Your task to perform on an android device: Open eBay Image 0: 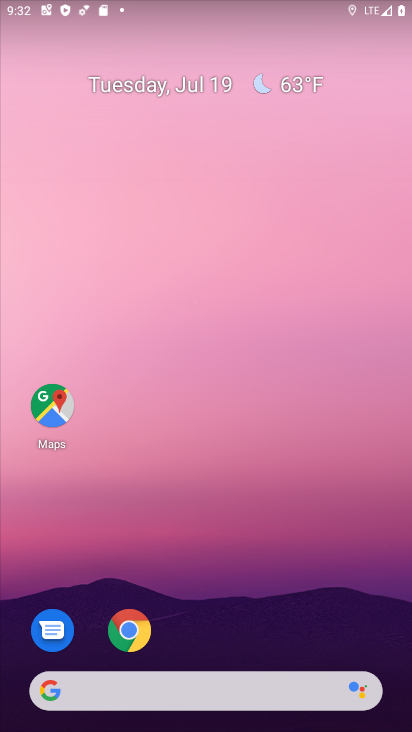
Step 0: click (128, 631)
Your task to perform on an android device: Open eBay Image 1: 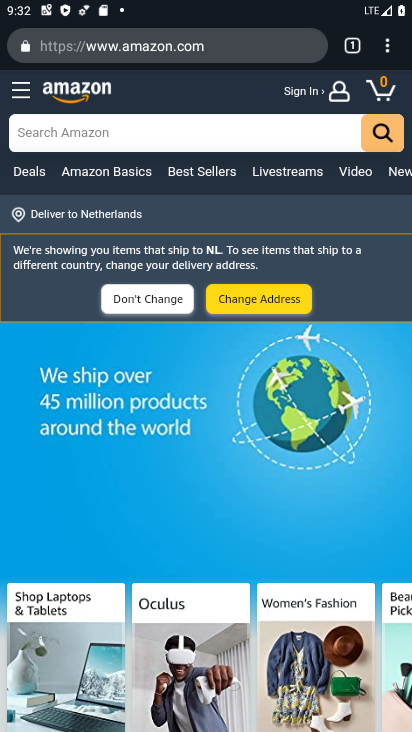
Step 1: click (251, 45)
Your task to perform on an android device: Open eBay Image 2: 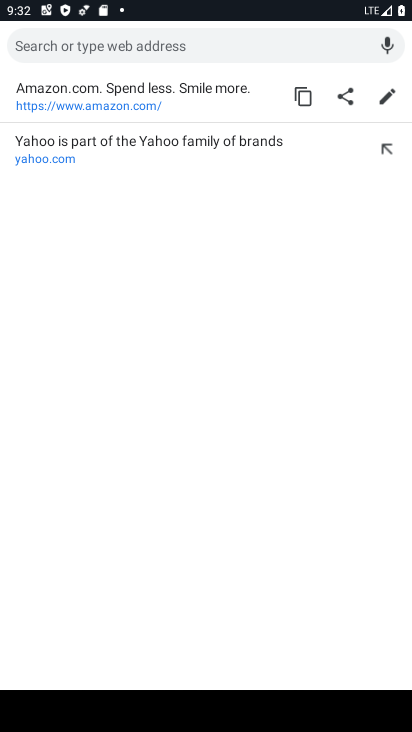
Step 2: type "eBay"
Your task to perform on an android device: Open eBay Image 3: 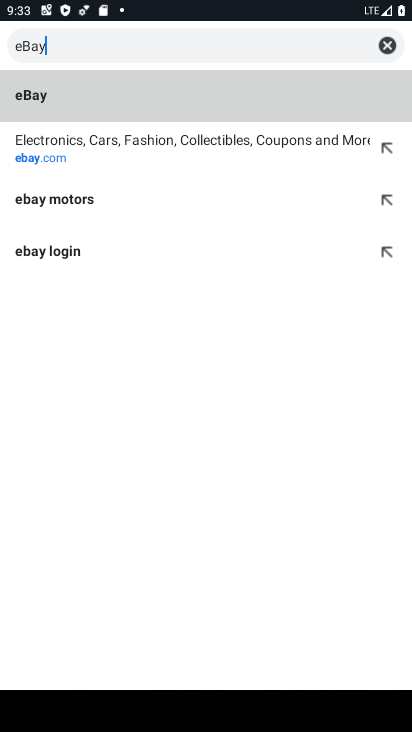
Step 3: click (44, 97)
Your task to perform on an android device: Open eBay Image 4: 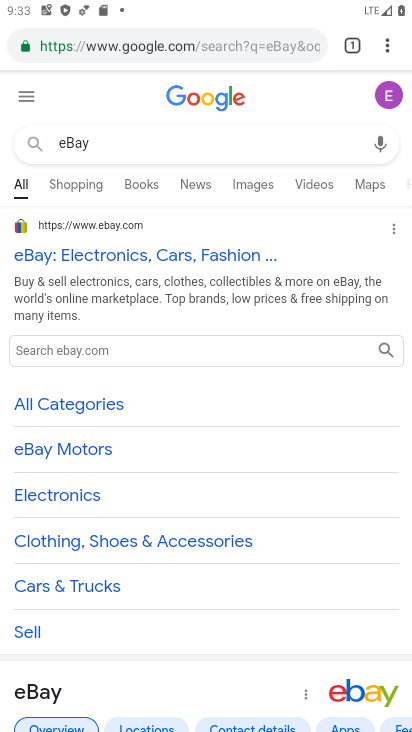
Step 4: click (81, 254)
Your task to perform on an android device: Open eBay Image 5: 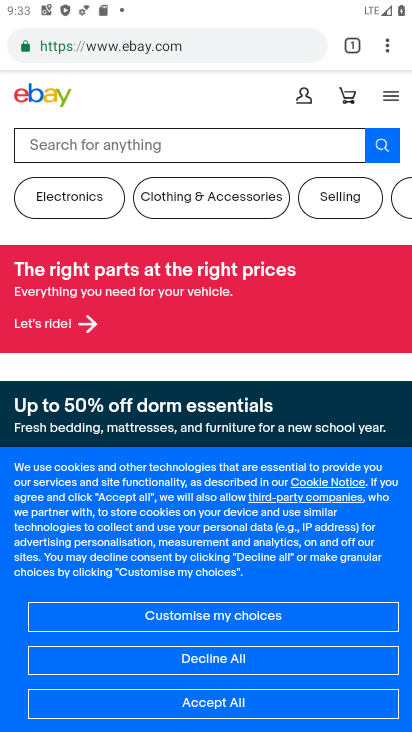
Step 5: task complete